Your task to perform on an android device: open app "Life360: Find Family & Friends" (install if not already installed) and enter user name: "gusts@gmail.com" and password: "assurers" Image 0: 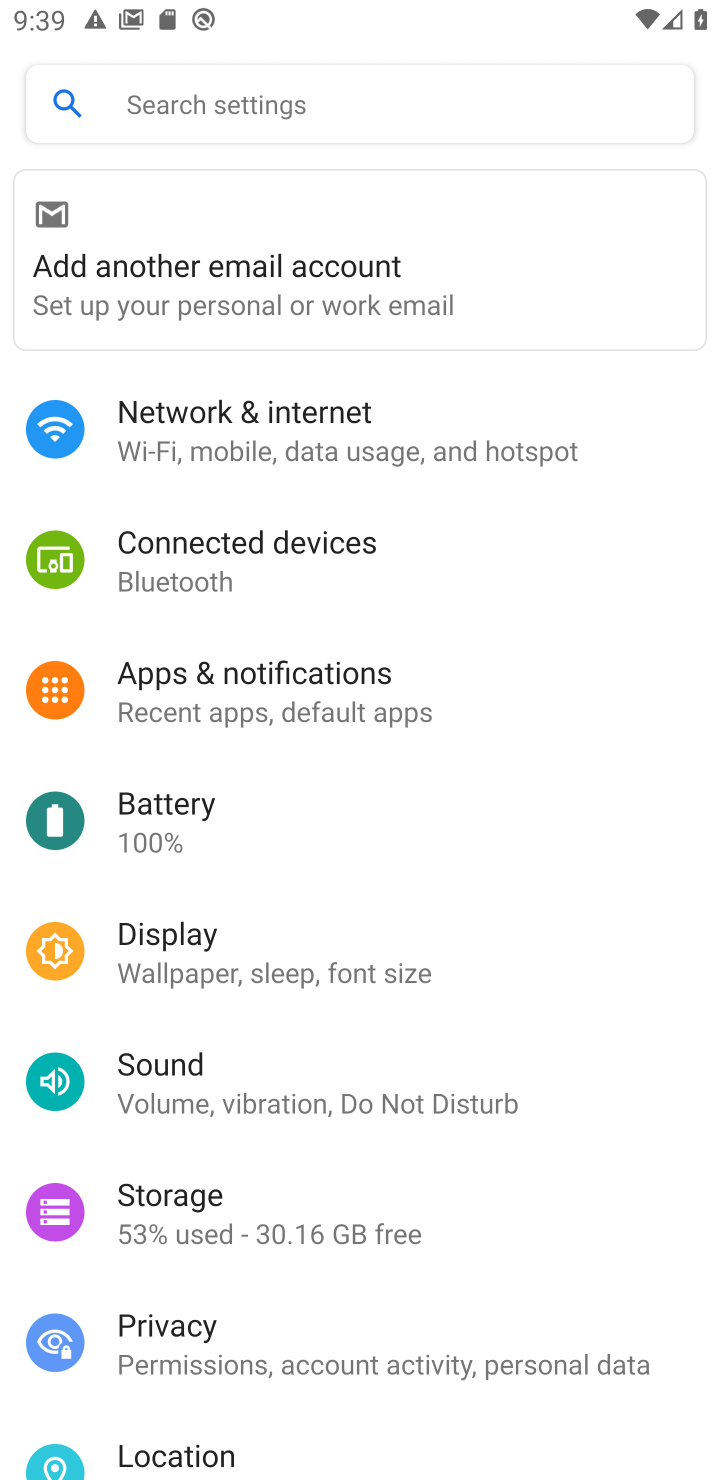
Step 0: press home button
Your task to perform on an android device: open app "Life360: Find Family & Friends" (install if not already installed) and enter user name: "gusts@gmail.com" and password: "assurers" Image 1: 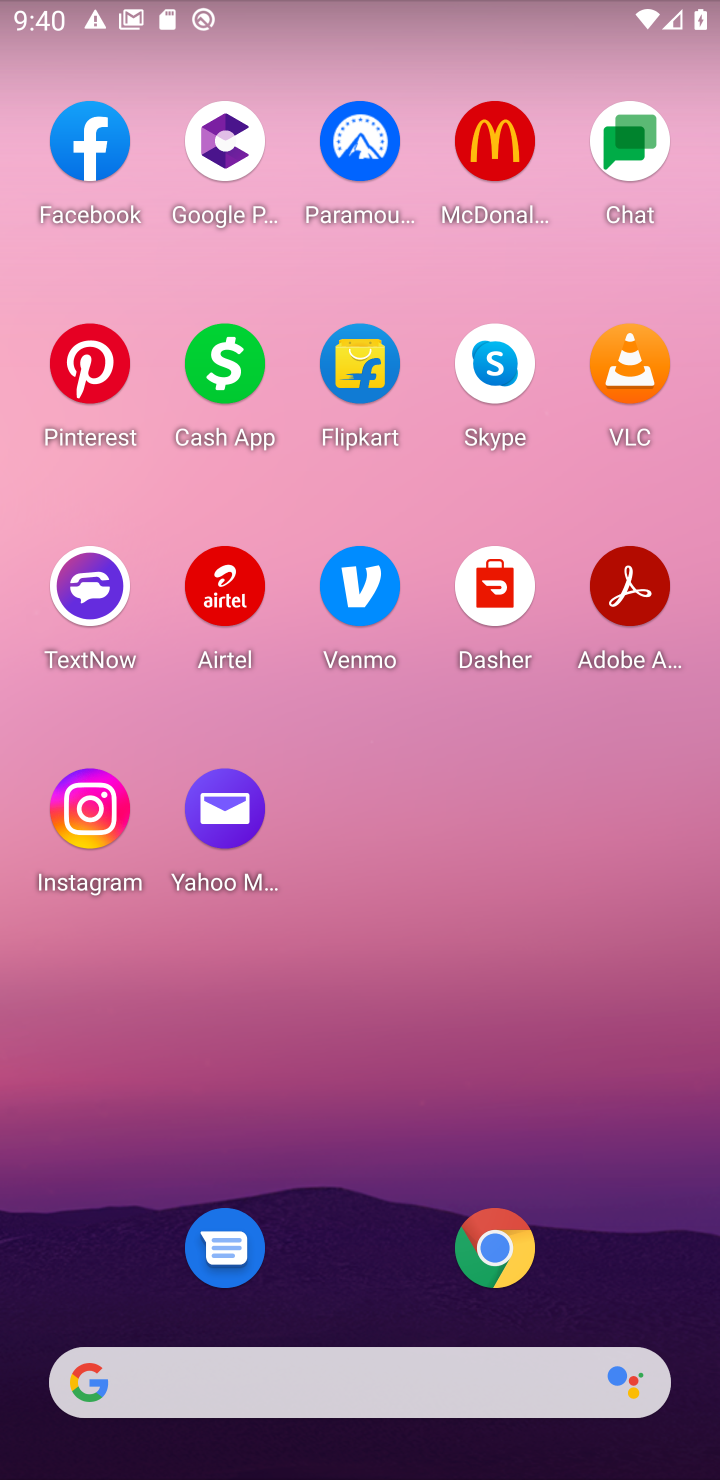
Step 1: drag from (321, 806) to (361, 15)
Your task to perform on an android device: open app "Life360: Find Family & Friends" (install if not already installed) and enter user name: "gusts@gmail.com" and password: "assurers" Image 2: 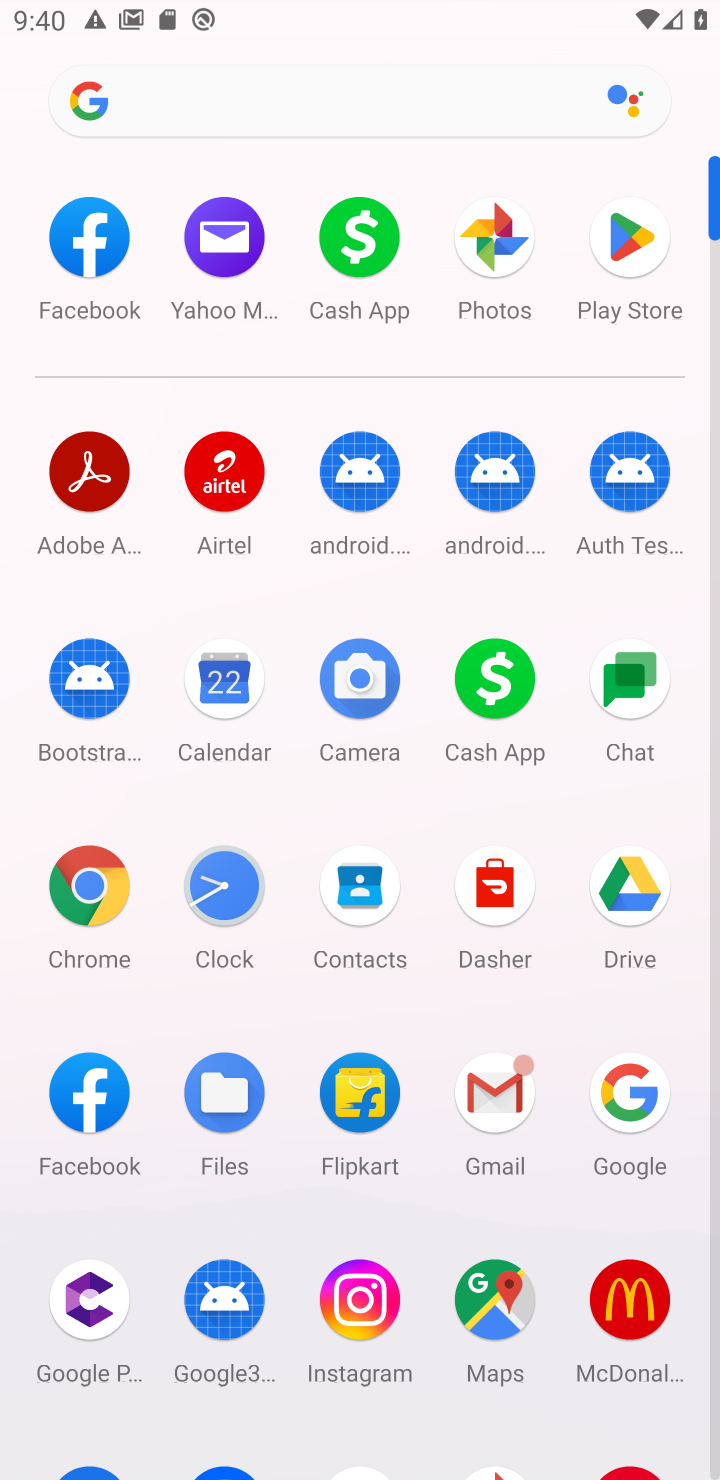
Step 2: click (632, 221)
Your task to perform on an android device: open app "Life360: Find Family & Friends" (install if not already installed) and enter user name: "gusts@gmail.com" and password: "assurers" Image 3: 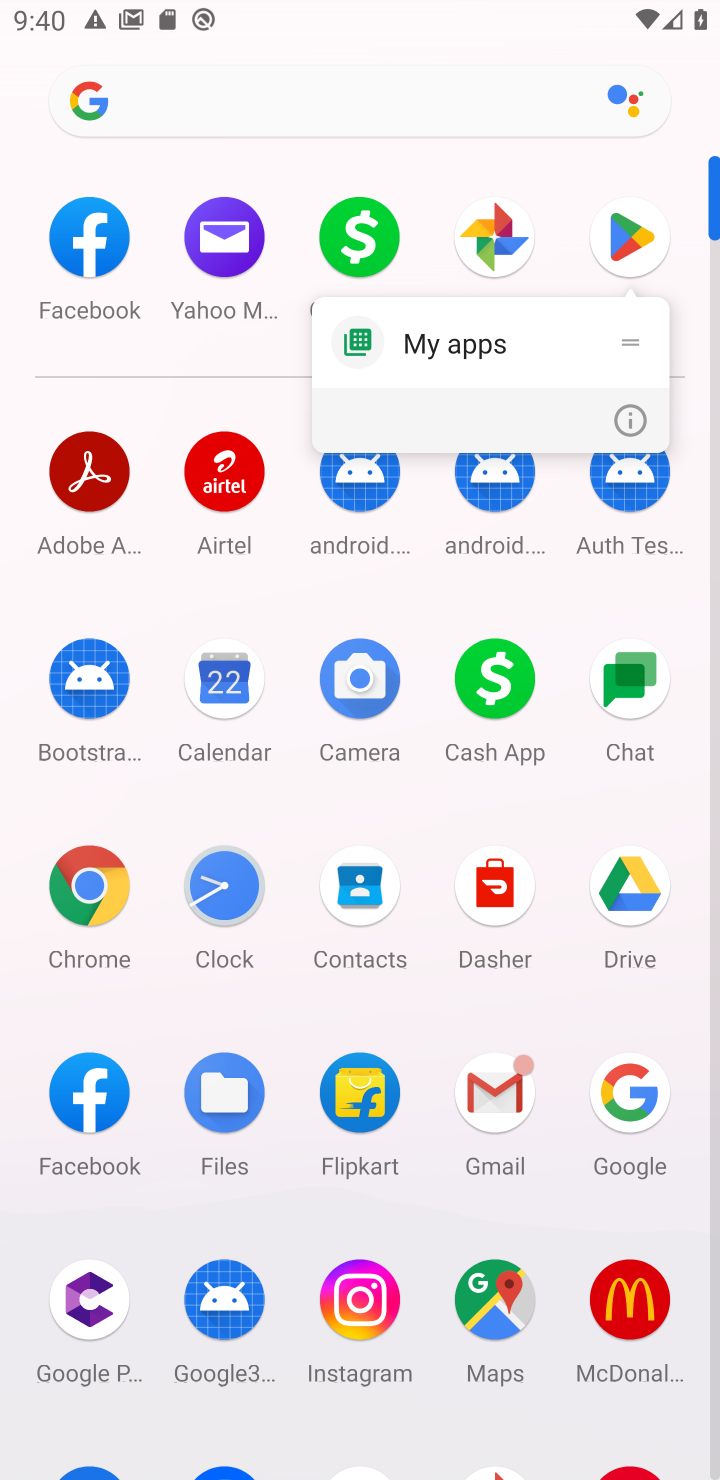
Step 3: click (632, 221)
Your task to perform on an android device: open app "Life360: Find Family & Friends" (install if not already installed) and enter user name: "gusts@gmail.com" and password: "assurers" Image 4: 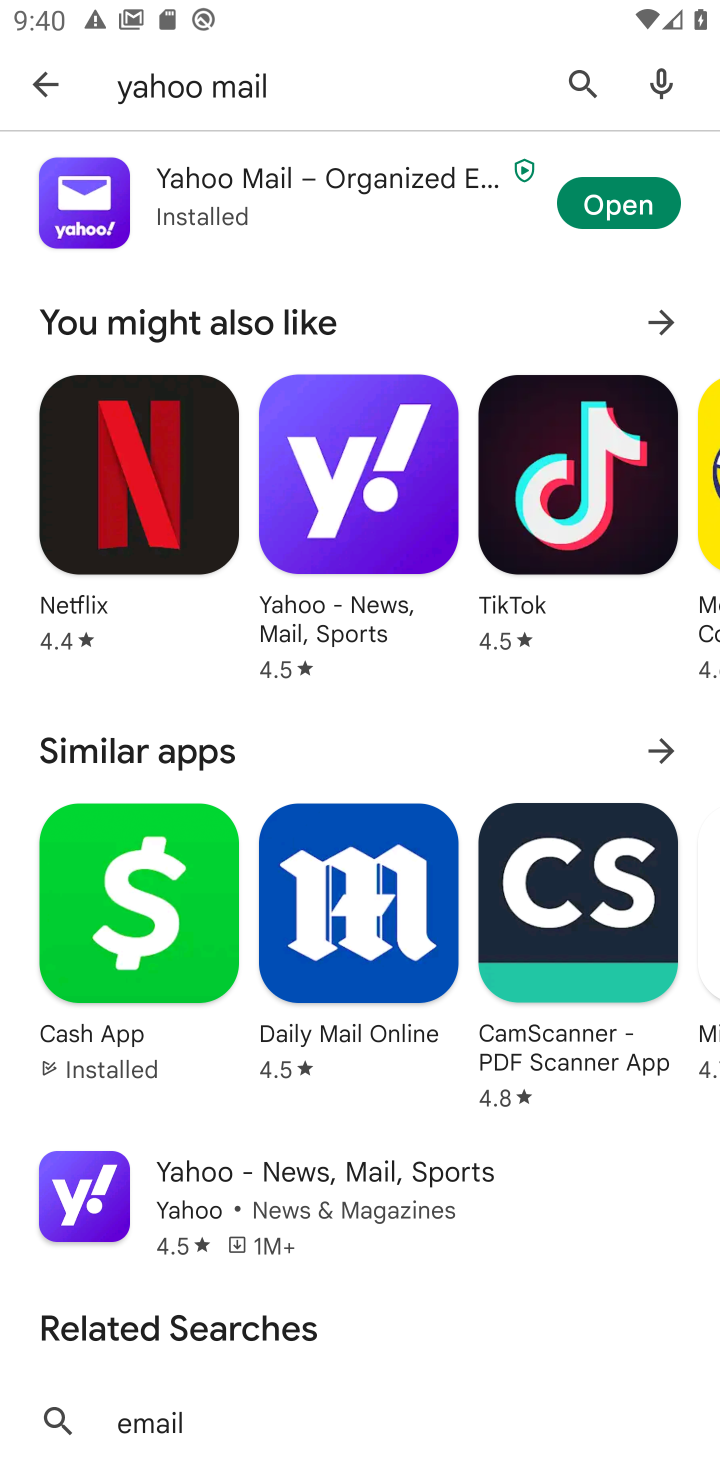
Step 4: click (581, 77)
Your task to perform on an android device: open app "Life360: Find Family & Friends" (install if not already installed) and enter user name: "gusts@gmail.com" and password: "assurers" Image 5: 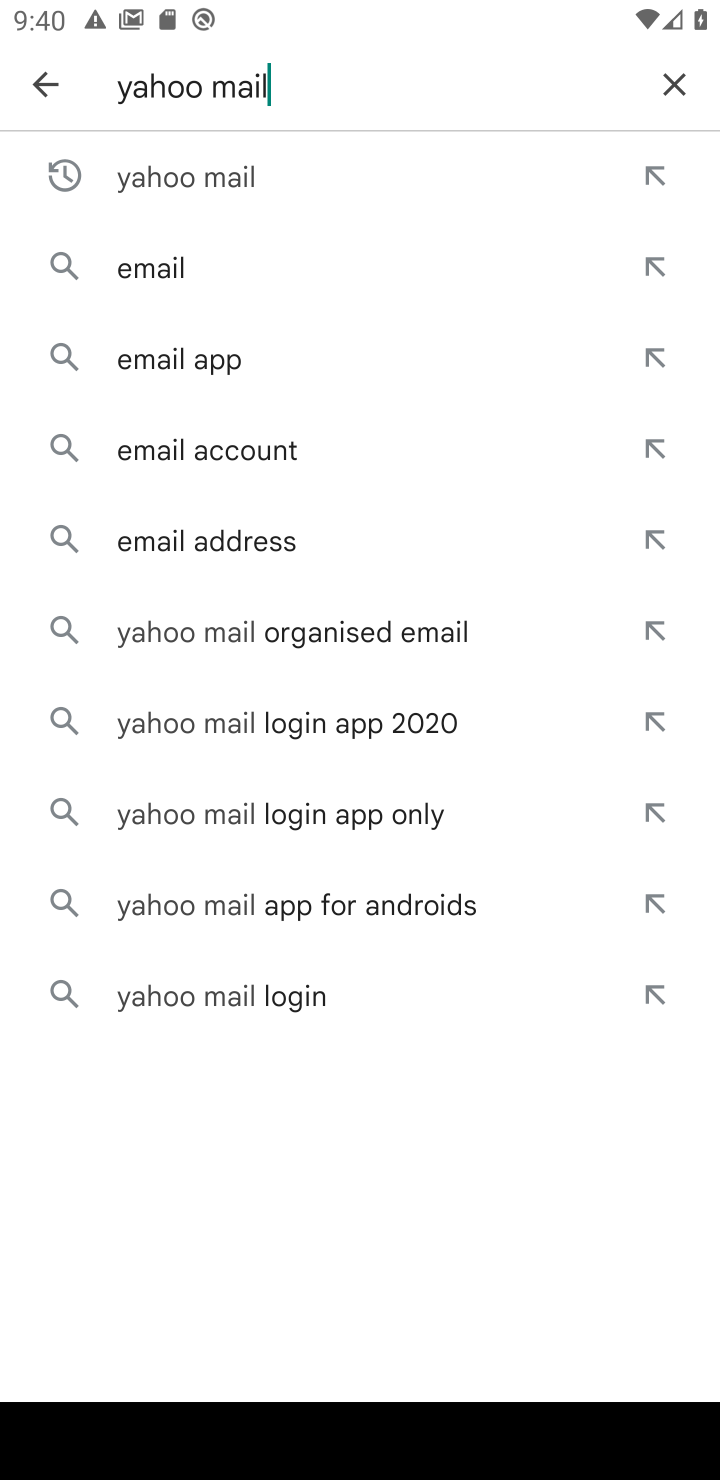
Step 5: click (677, 80)
Your task to perform on an android device: open app "Life360: Find Family & Friends" (install if not already installed) and enter user name: "gusts@gmail.com" and password: "assurers" Image 6: 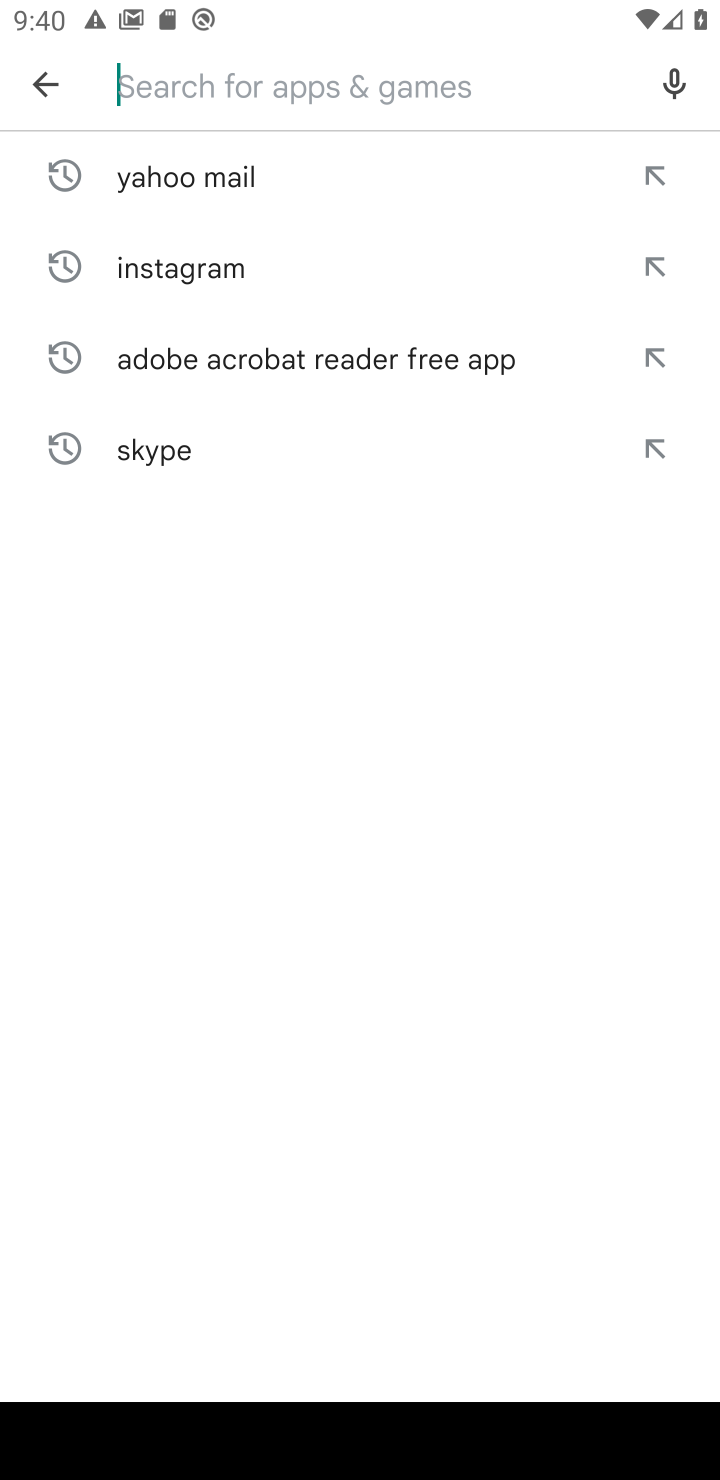
Step 6: type "Life360: Find Family & Friends"
Your task to perform on an android device: open app "Life360: Find Family & Friends" (install if not already installed) and enter user name: "gusts@gmail.com" and password: "assurers" Image 7: 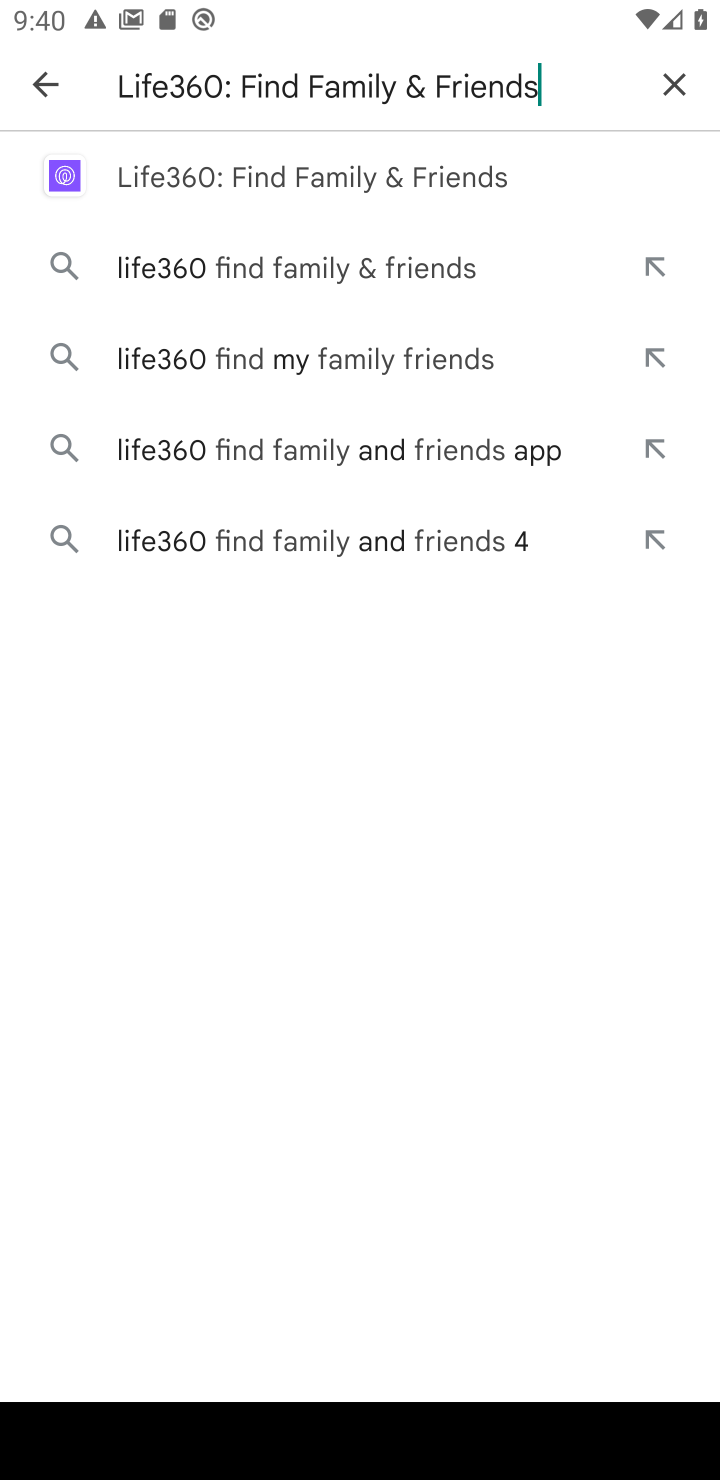
Step 7: click (362, 184)
Your task to perform on an android device: open app "Life360: Find Family & Friends" (install if not already installed) and enter user name: "gusts@gmail.com" and password: "assurers" Image 8: 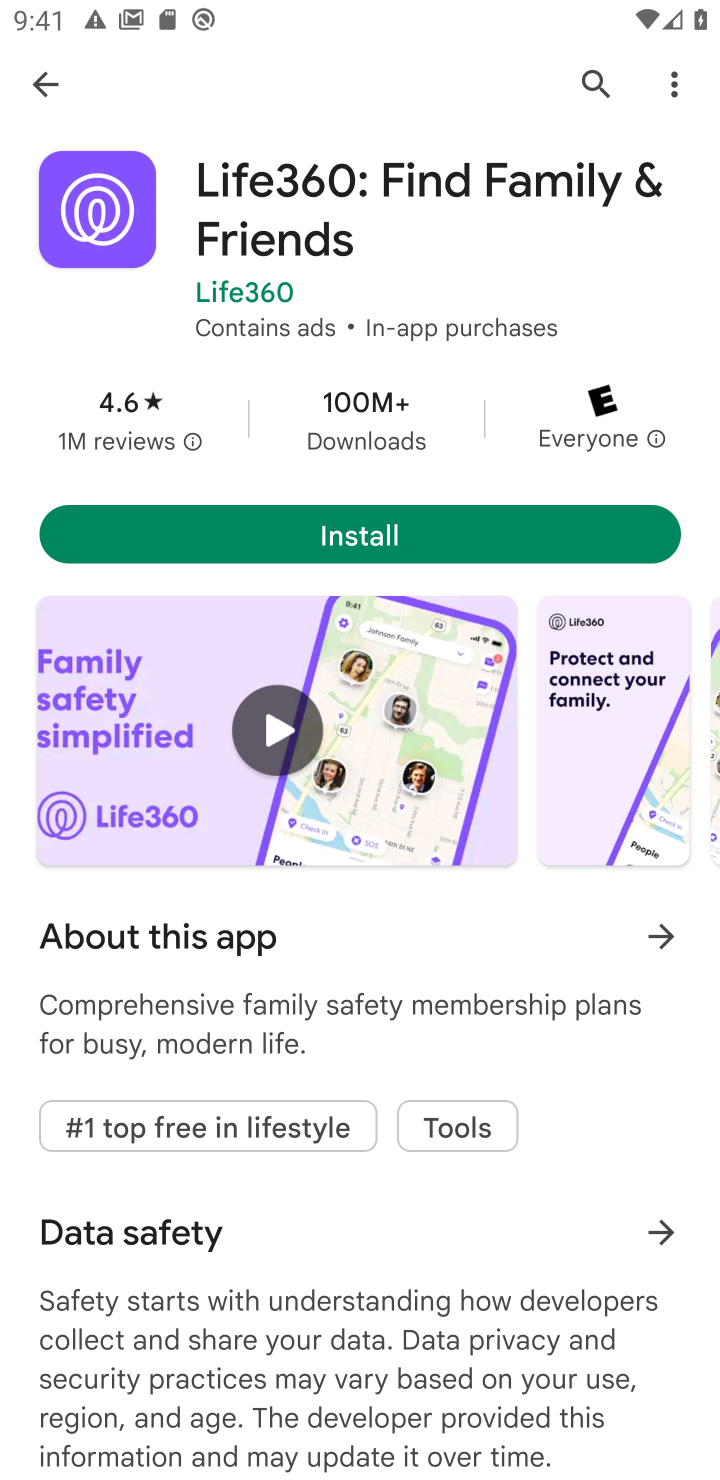
Step 8: click (344, 533)
Your task to perform on an android device: open app "Life360: Find Family & Friends" (install if not already installed) and enter user name: "gusts@gmail.com" and password: "assurers" Image 9: 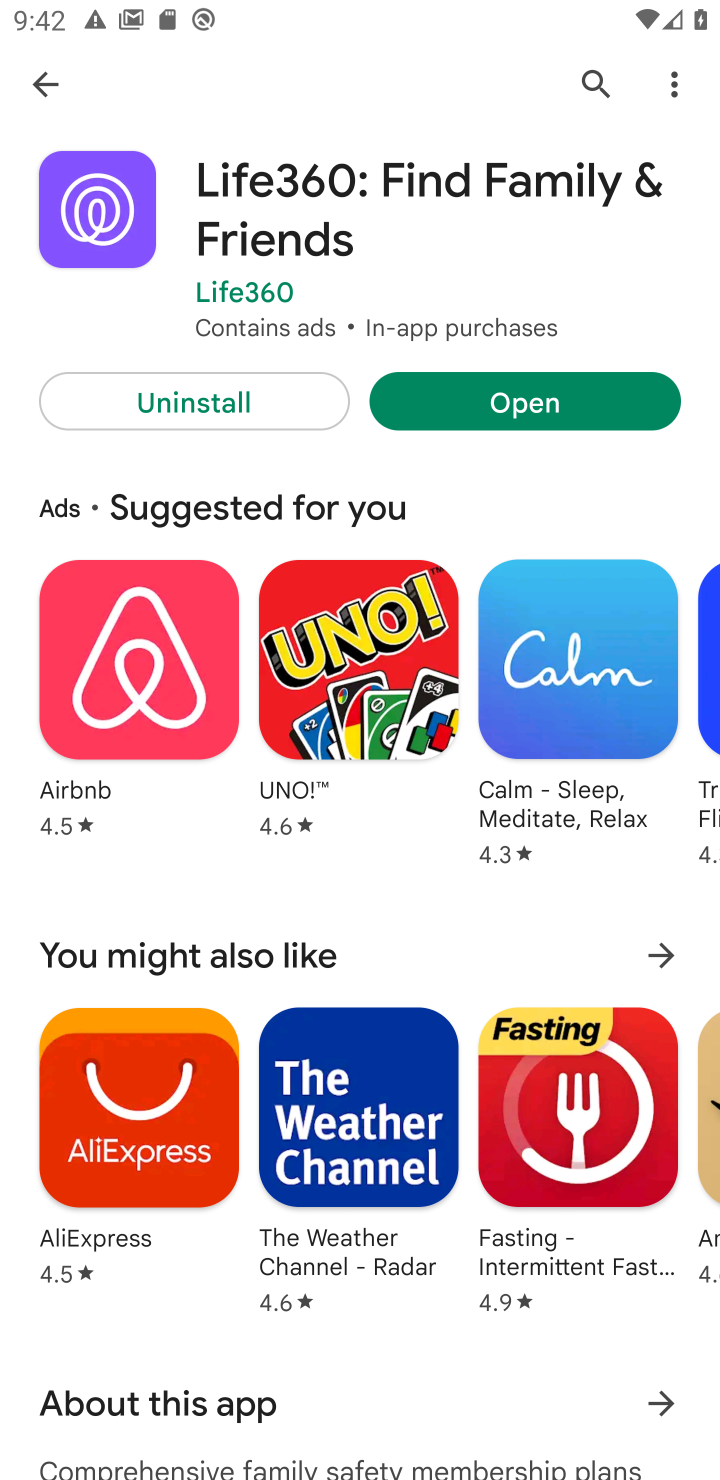
Step 9: click (504, 402)
Your task to perform on an android device: open app "Life360: Find Family & Friends" (install if not already installed) and enter user name: "gusts@gmail.com" and password: "assurers" Image 10: 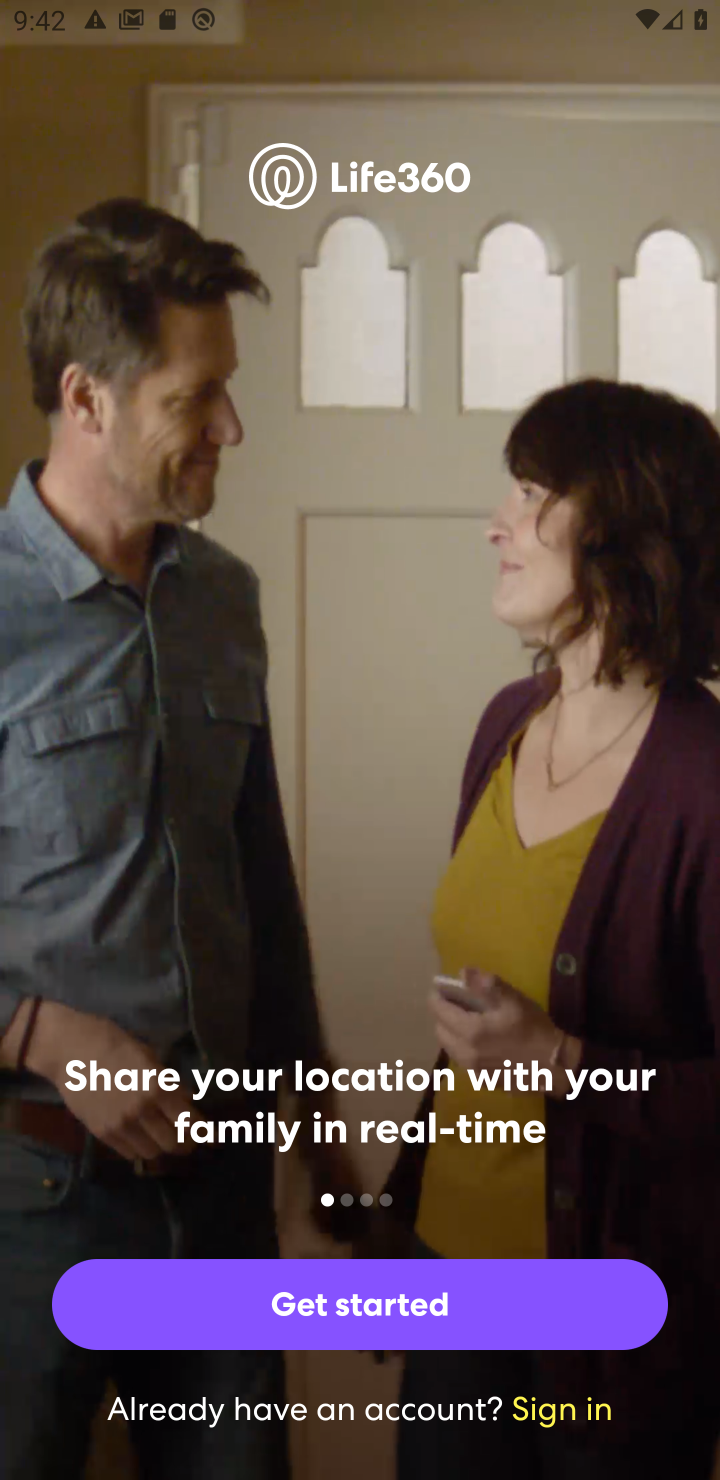
Step 10: click (582, 1408)
Your task to perform on an android device: open app "Life360: Find Family & Friends" (install if not already installed) and enter user name: "gusts@gmail.com" and password: "assurers" Image 11: 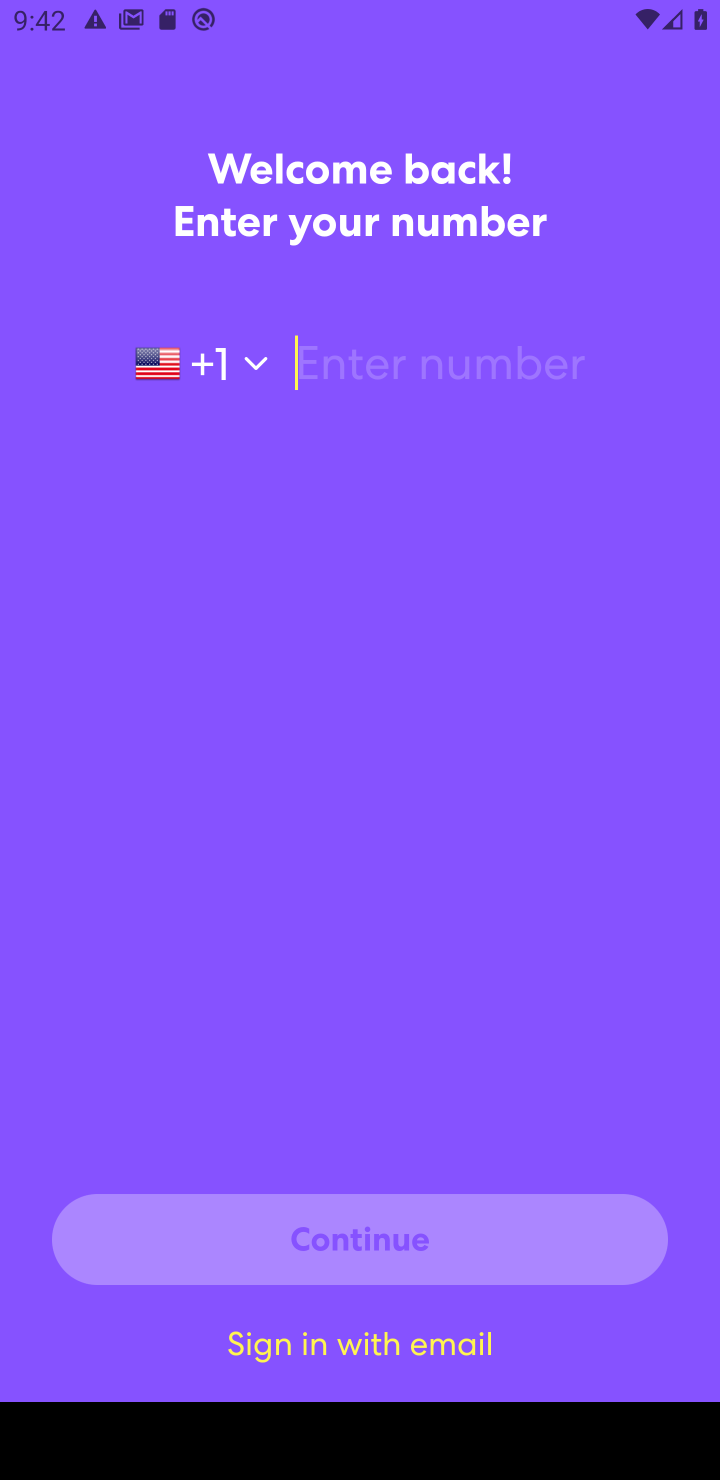
Step 11: click (417, 1336)
Your task to perform on an android device: open app "Life360: Find Family & Friends" (install if not already installed) and enter user name: "gusts@gmail.com" and password: "assurers" Image 12: 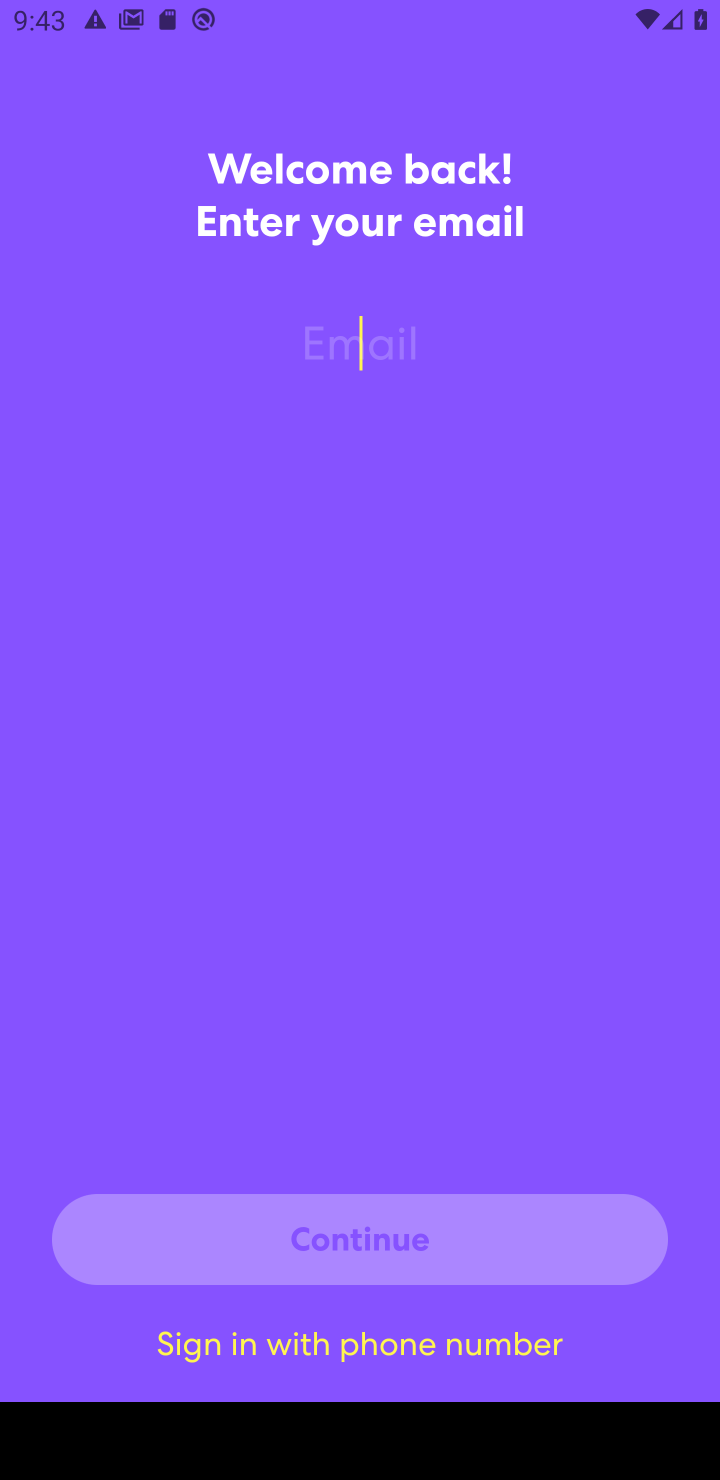
Step 12: type "gusts@gmail.com"
Your task to perform on an android device: open app "Life360: Find Family & Friends" (install if not already installed) and enter user name: "gusts@gmail.com" and password: "assurers" Image 13: 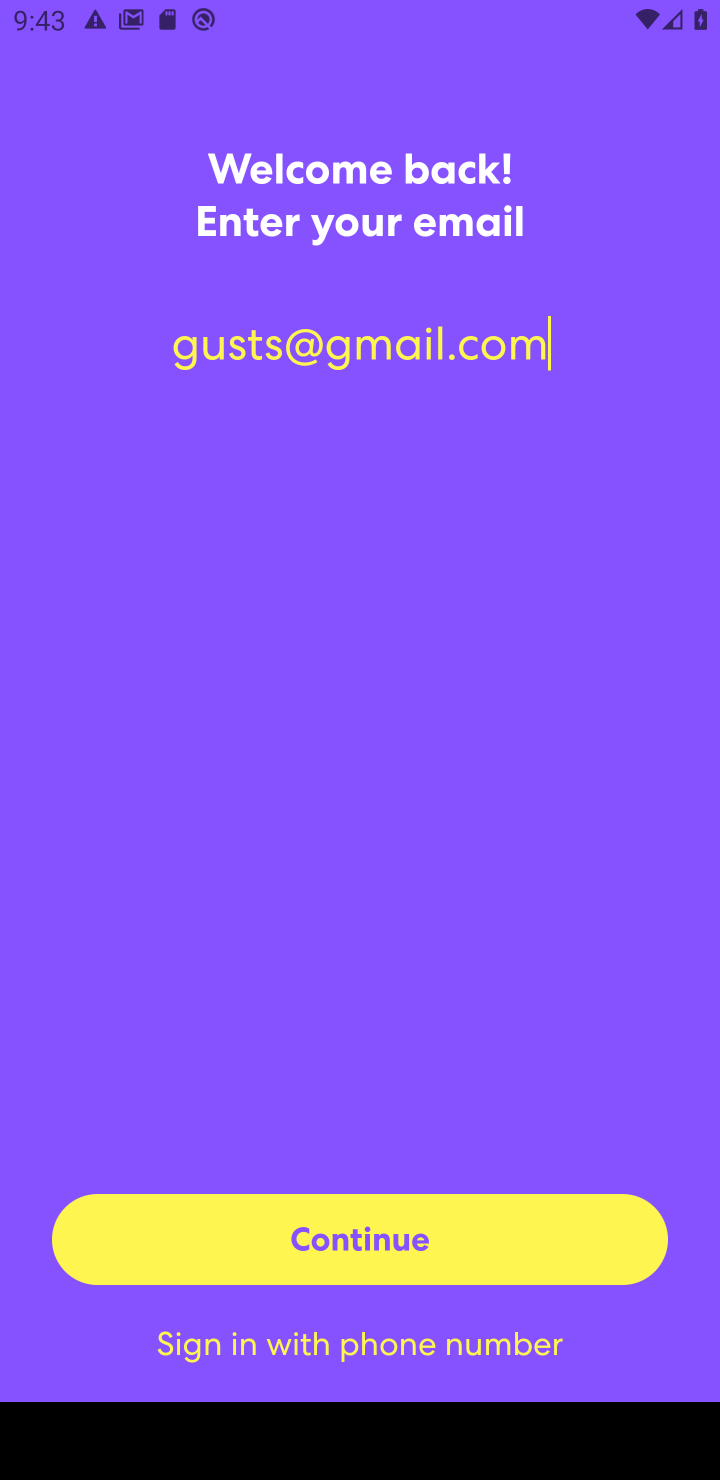
Step 13: click (420, 1258)
Your task to perform on an android device: open app "Life360: Find Family & Friends" (install if not already installed) and enter user name: "gusts@gmail.com" and password: "assurers" Image 14: 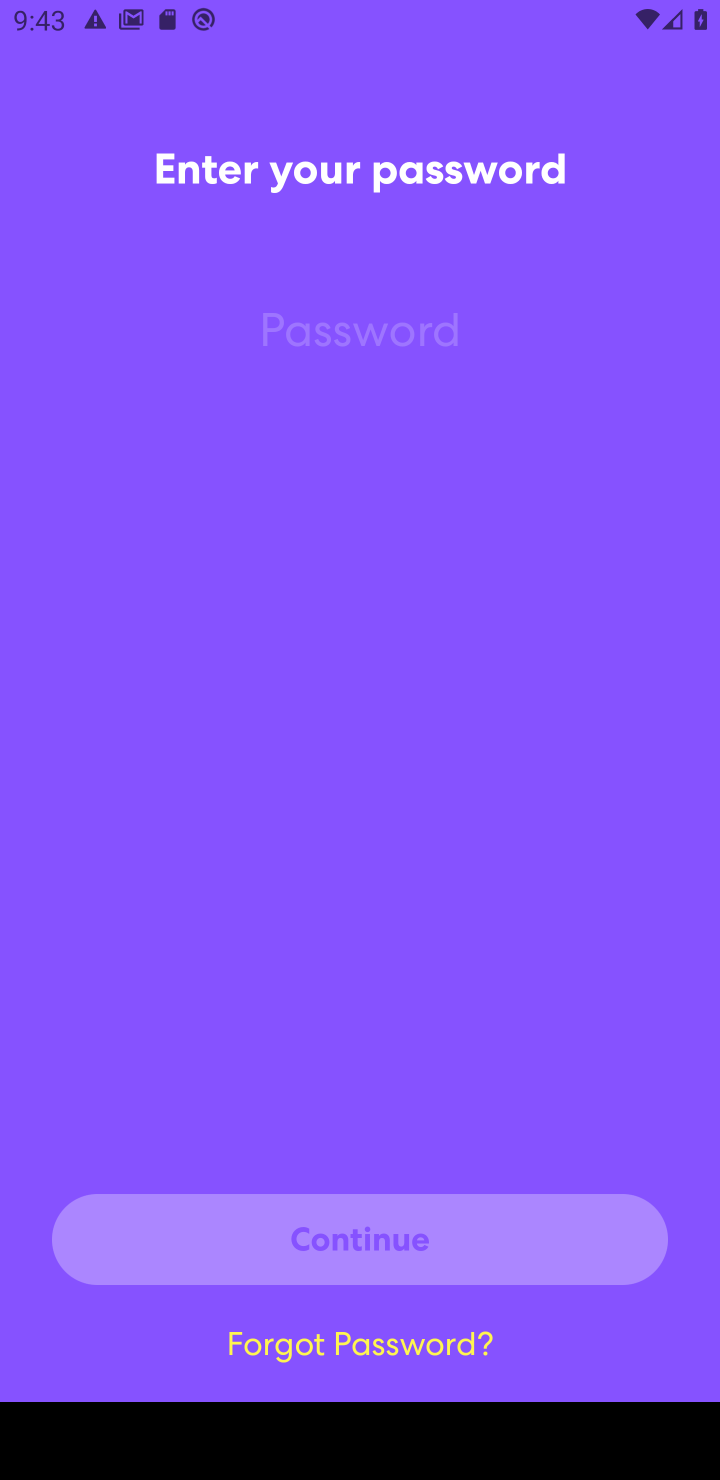
Step 14: type "assurers"
Your task to perform on an android device: open app "Life360: Find Family & Friends" (install if not already installed) and enter user name: "gusts@gmail.com" and password: "assurers" Image 15: 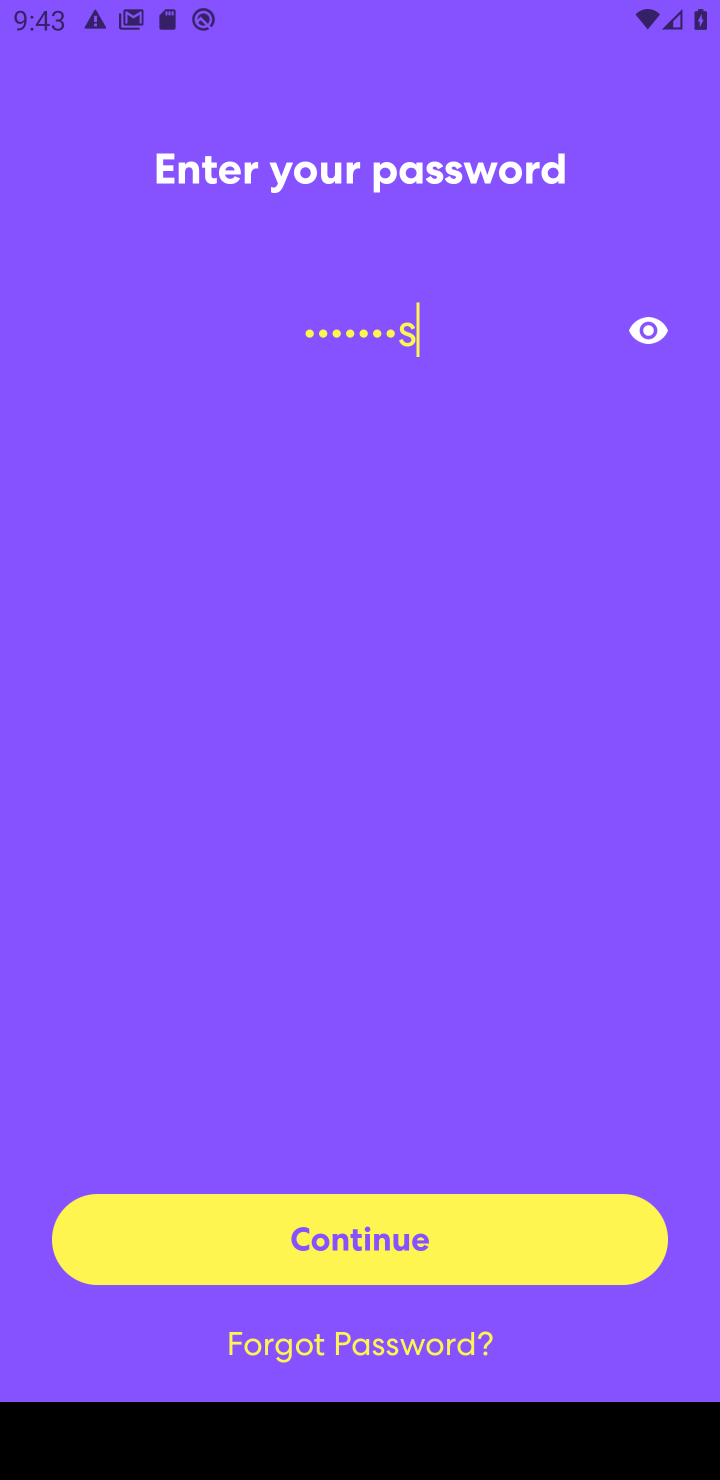
Step 15: type ""
Your task to perform on an android device: open app "Life360: Find Family & Friends" (install if not already installed) and enter user name: "gusts@gmail.com" and password: "assurers" Image 16: 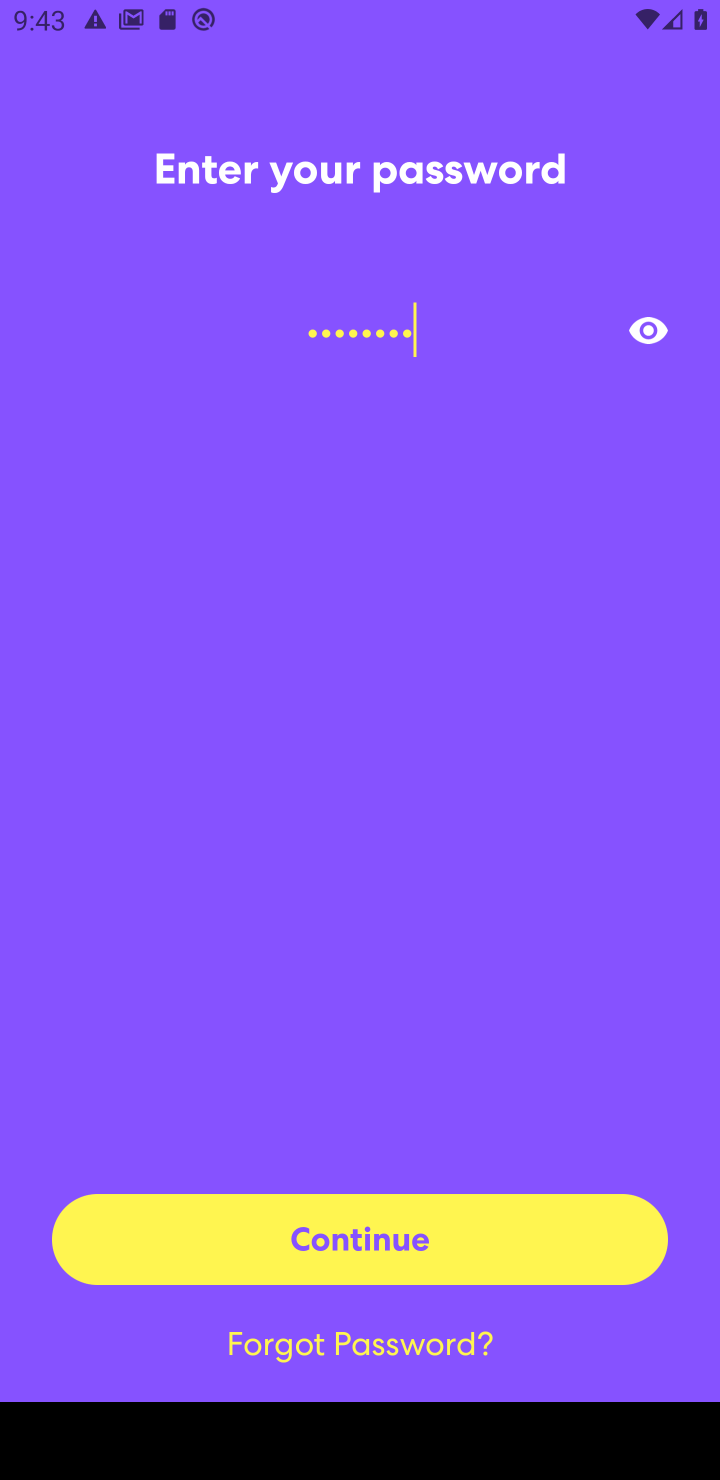
Step 16: click (361, 1244)
Your task to perform on an android device: open app "Life360: Find Family & Friends" (install if not already installed) and enter user name: "gusts@gmail.com" and password: "assurers" Image 17: 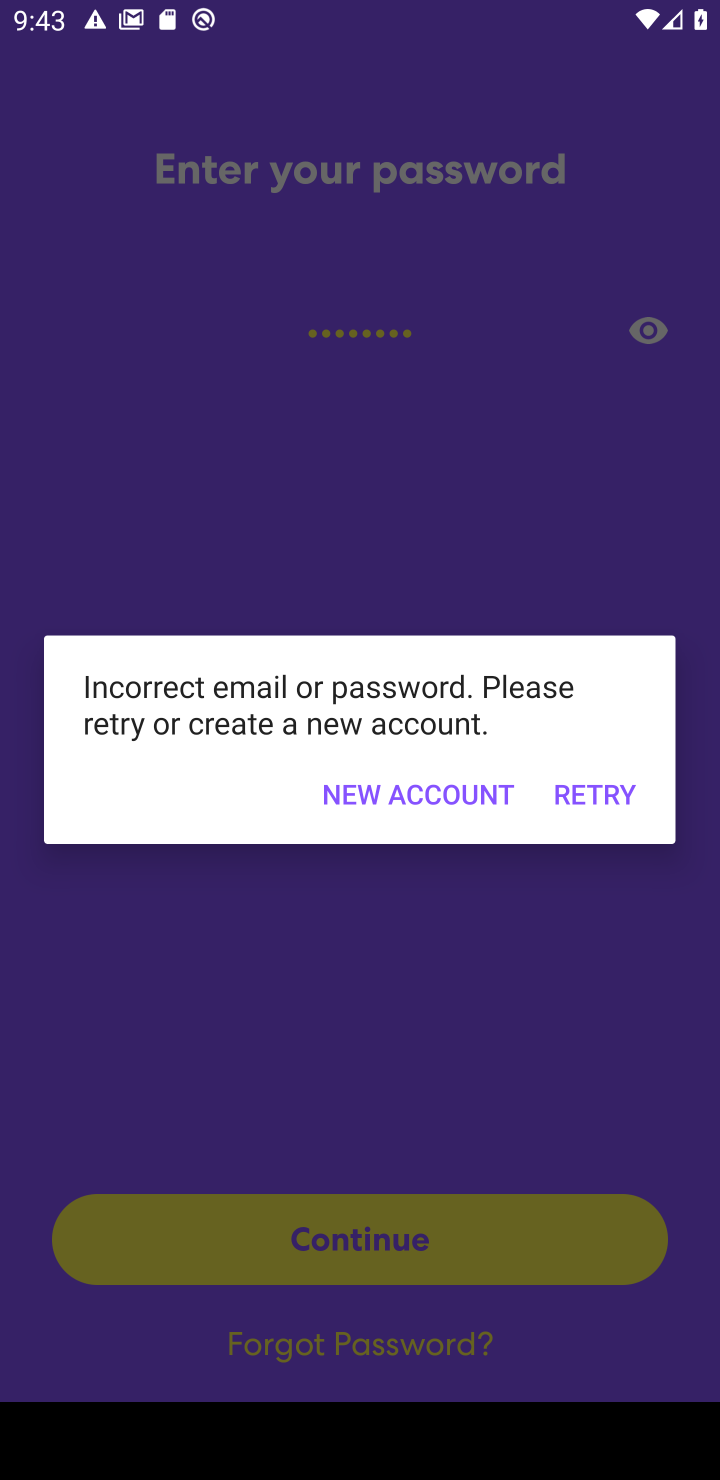
Step 17: task complete